Your task to perform on an android device: turn on javascript in the chrome app Image 0: 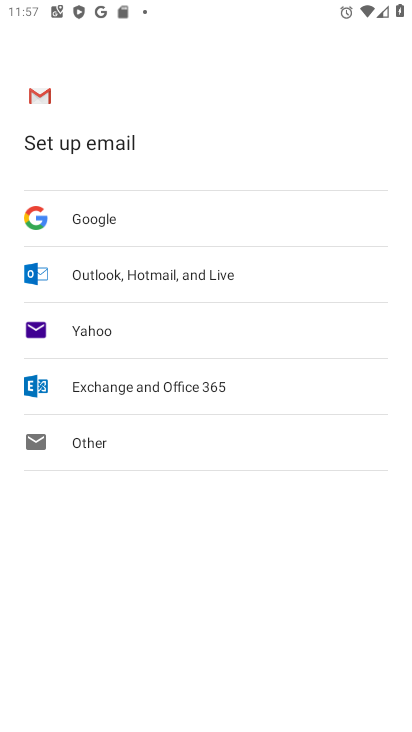
Step 0: press home button
Your task to perform on an android device: turn on javascript in the chrome app Image 1: 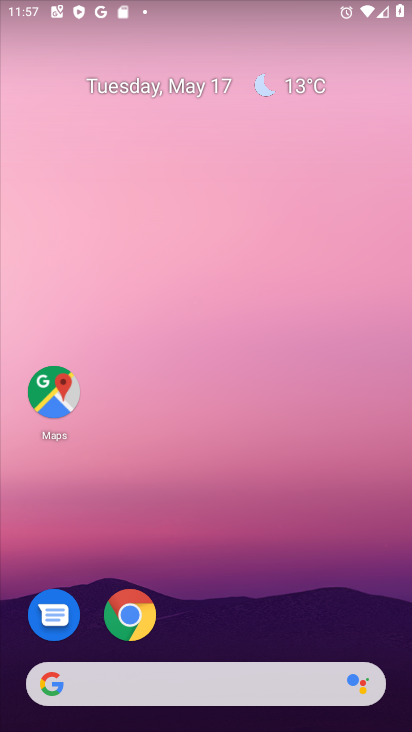
Step 1: drag from (231, 601) to (232, 141)
Your task to perform on an android device: turn on javascript in the chrome app Image 2: 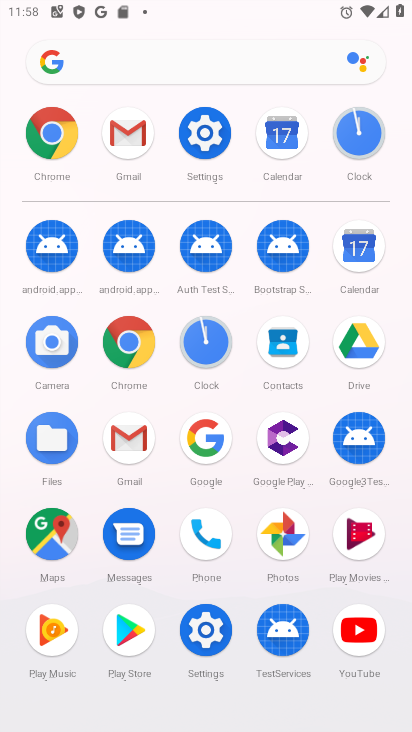
Step 2: click (124, 342)
Your task to perform on an android device: turn on javascript in the chrome app Image 3: 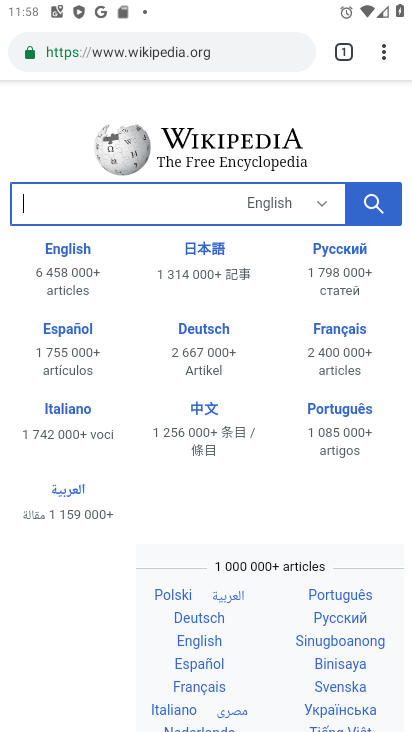
Step 3: drag from (387, 51) to (252, 637)
Your task to perform on an android device: turn on javascript in the chrome app Image 4: 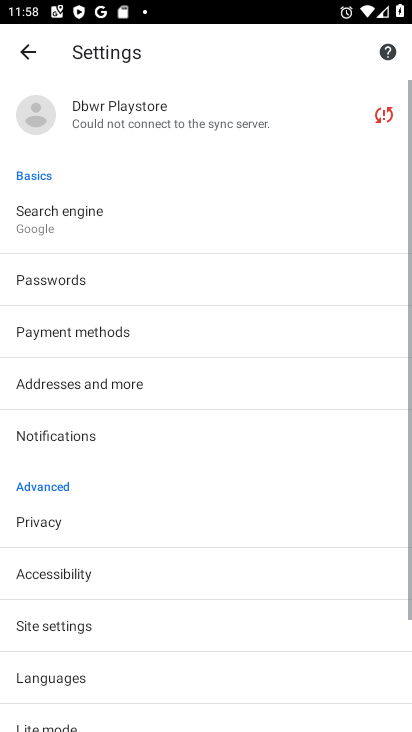
Step 4: drag from (251, 561) to (368, 115)
Your task to perform on an android device: turn on javascript in the chrome app Image 5: 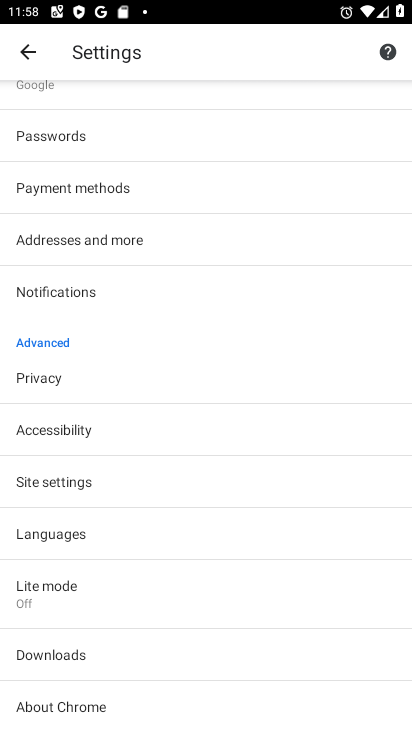
Step 5: click (86, 483)
Your task to perform on an android device: turn on javascript in the chrome app Image 6: 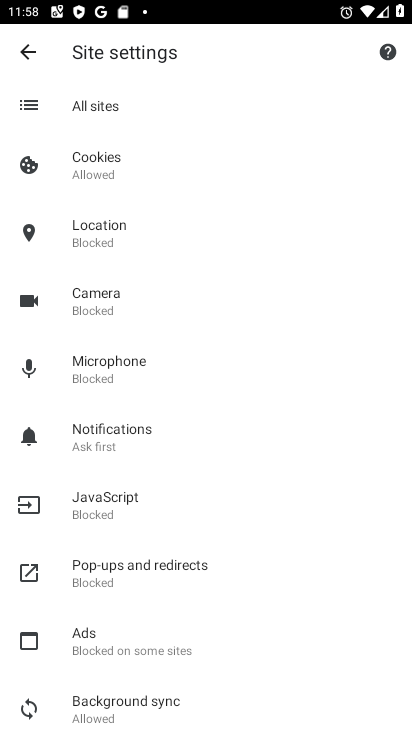
Step 6: click (148, 505)
Your task to perform on an android device: turn on javascript in the chrome app Image 7: 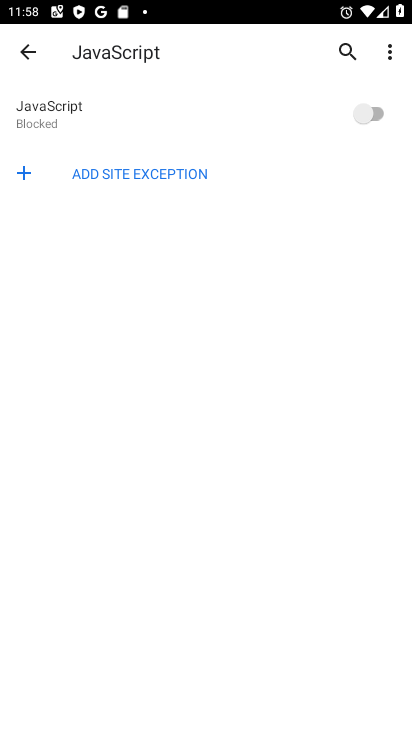
Step 7: click (381, 115)
Your task to perform on an android device: turn on javascript in the chrome app Image 8: 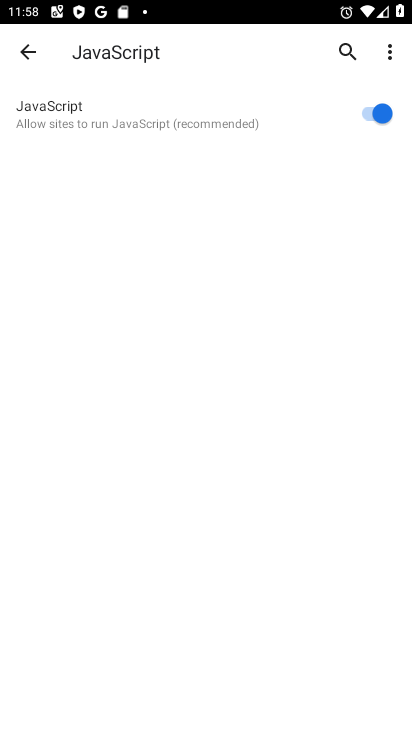
Step 8: task complete